Your task to perform on an android device: change the clock display to show seconds Image 0: 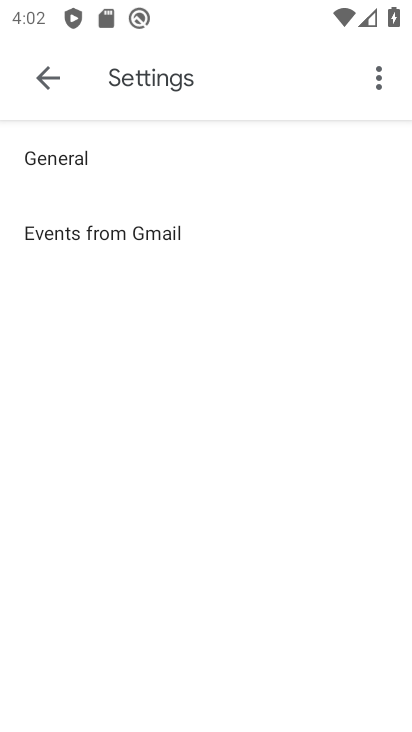
Step 0: press home button
Your task to perform on an android device: change the clock display to show seconds Image 1: 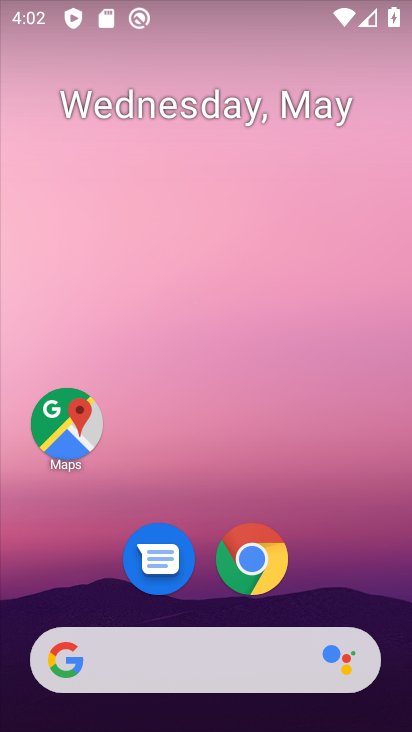
Step 1: drag from (342, 471) to (216, 99)
Your task to perform on an android device: change the clock display to show seconds Image 2: 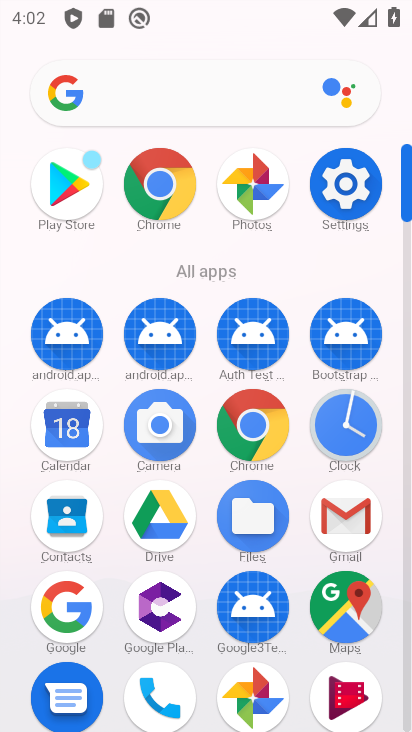
Step 2: click (353, 419)
Your task to perform on an android device: change the clock display to show seconds Image 3: 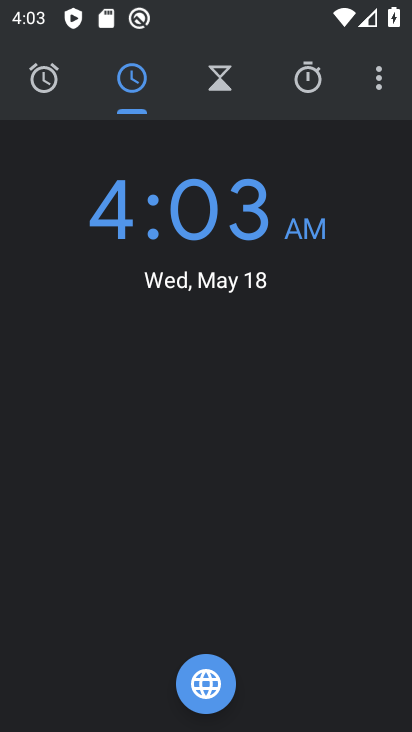
Step 3: click (377, 77)
Your task to perform on an android device: change the clock display to show seconds Image 4: 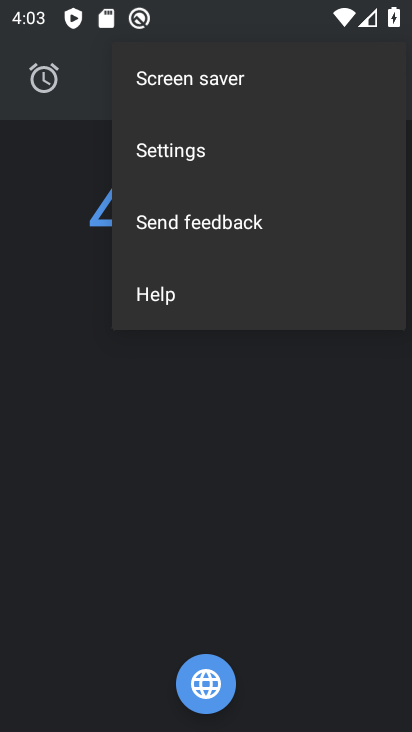
Step 4: click (190, 150)
Your task to perform on an android device: change the clock display to show seconds Image 5: 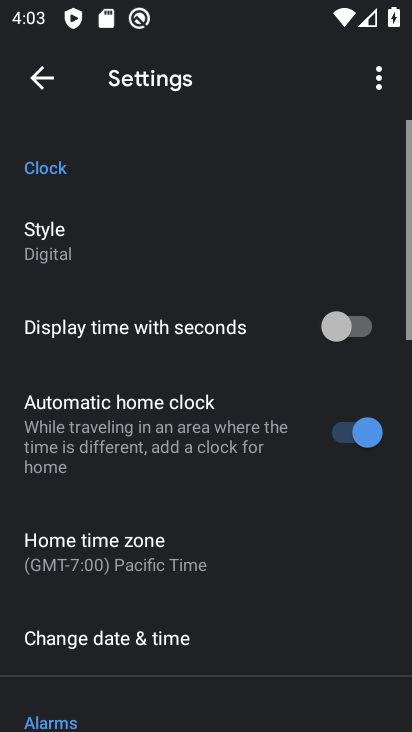
Step 5: click (325, 334)
Your task to perform on an android device: change the clock display to show seconds Image 6: 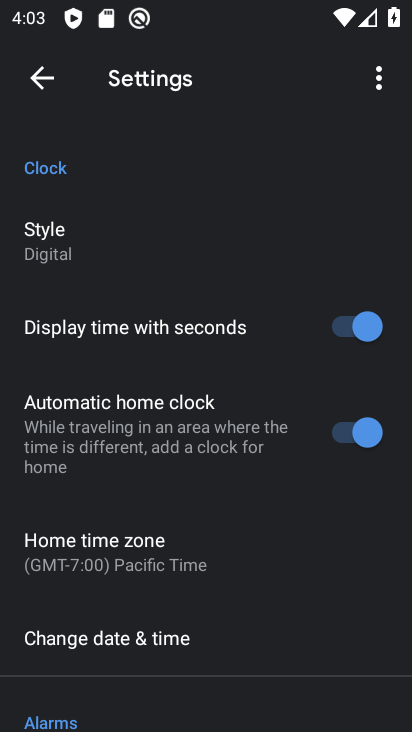
Step 6: task complete